Your task to perform on an android device: Open Chrome and go to settings Image 0: 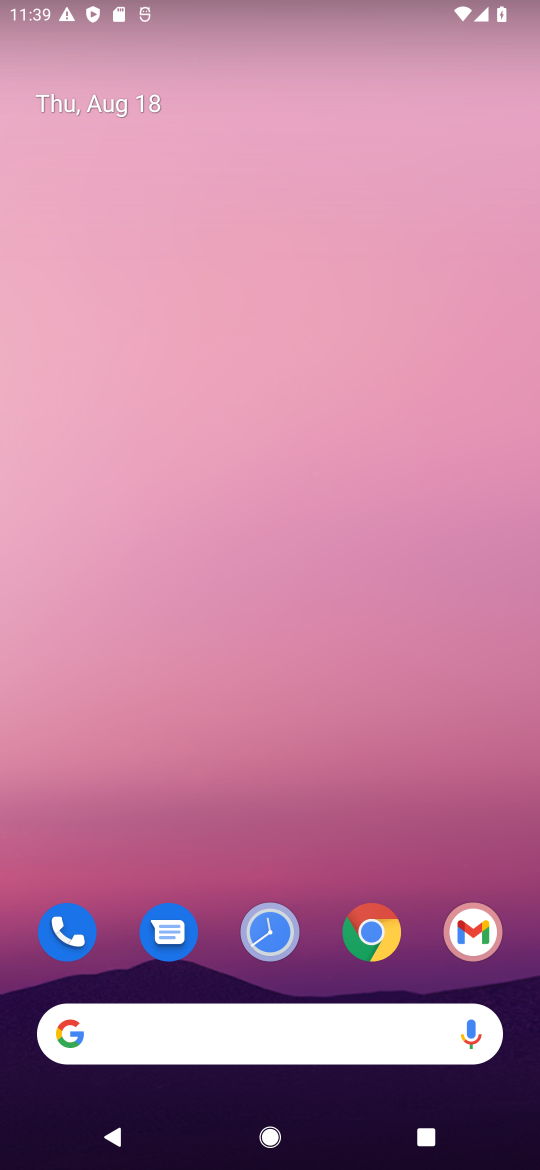
Step 0: click (369, 936)
Your task to perform on an android device: Open Chrome and go to settings Image 1: 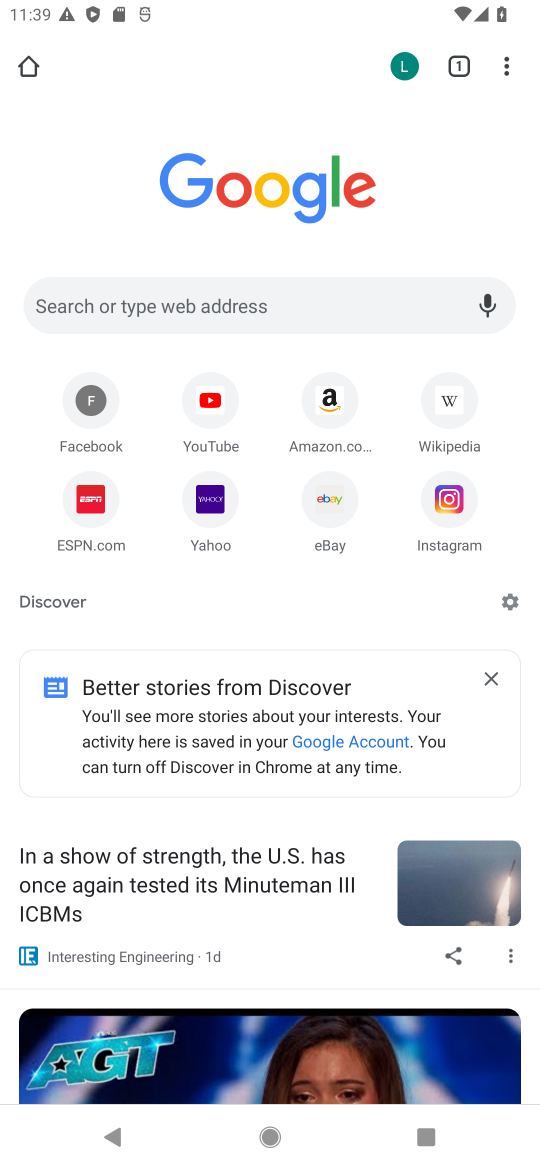
Step 1: click (503, 67)
Your task to perform on an android device: Open Chrome and go to settings Image 2: 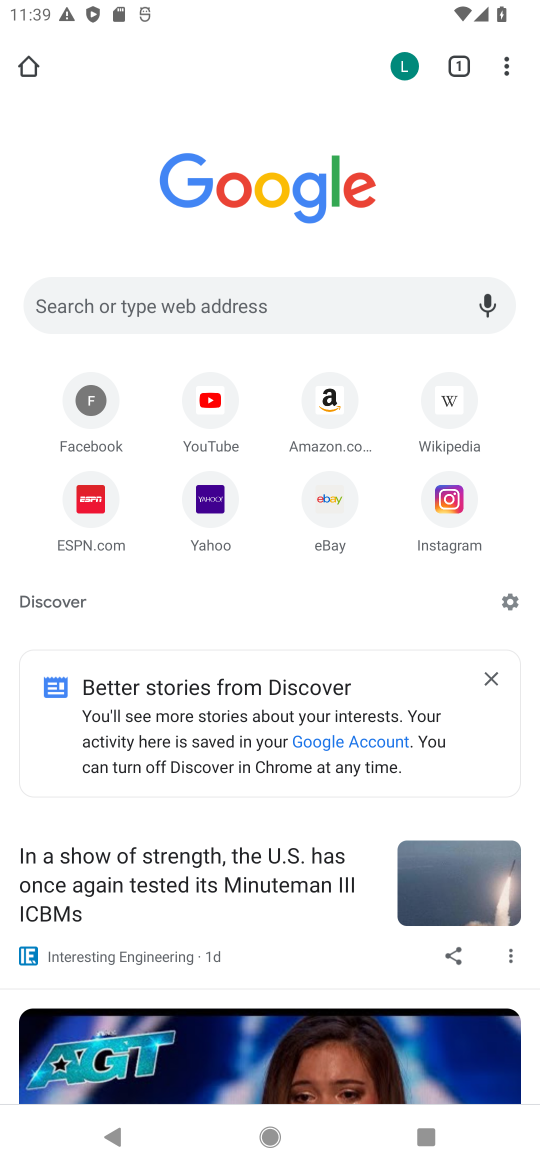
Step 2: click (502, 60)
Your task to perform on an android device: Open Chrome and go to settings Image 3: 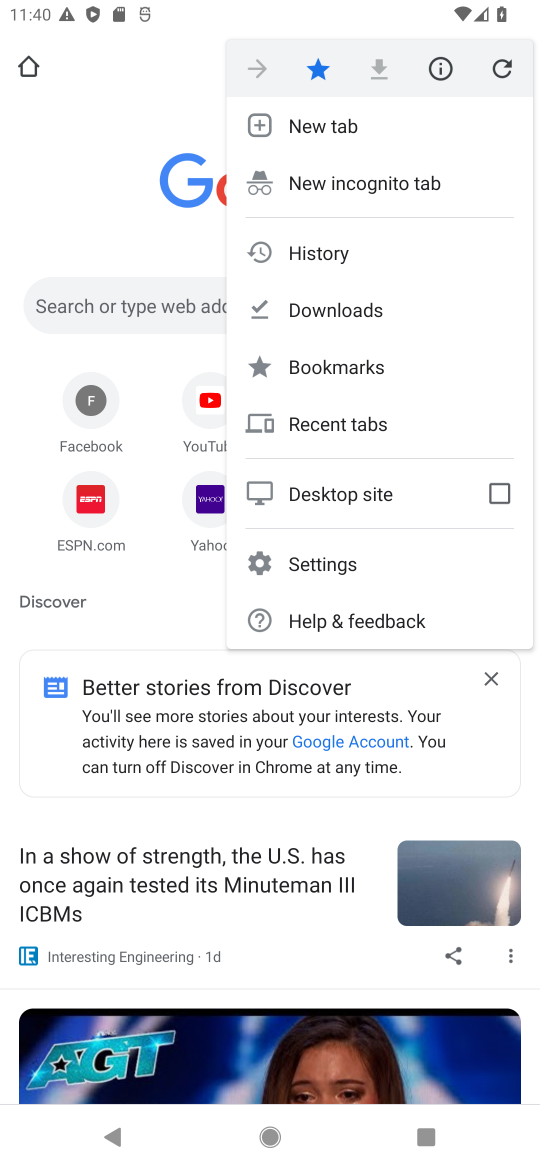
Step 3: click (325, 565)
Your task to perform on an android device: Open Chrome and go to settings Image 4: 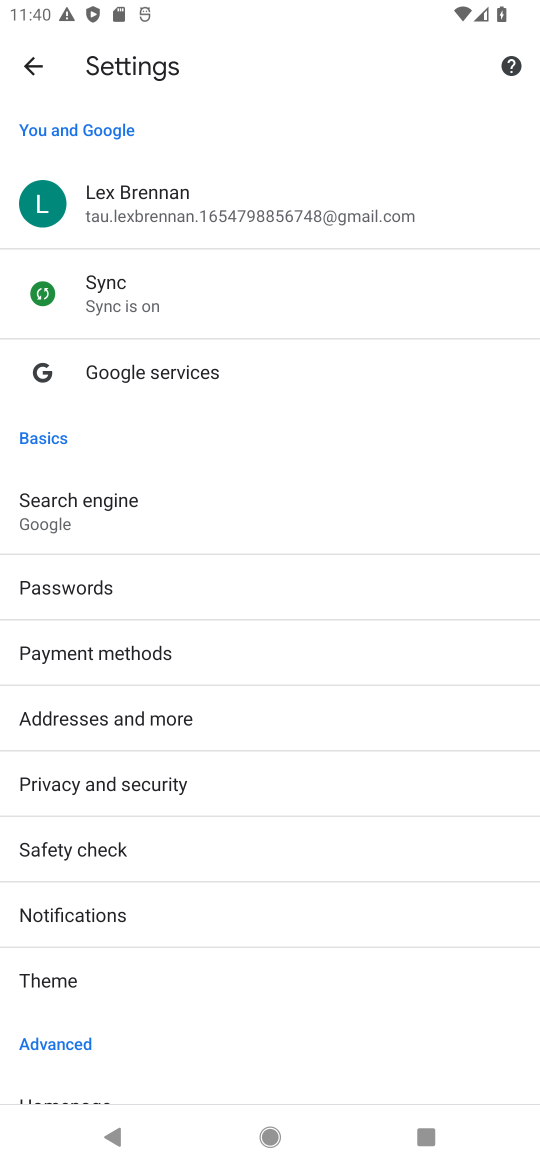
Step 4: task complete